Your task to perform on an android device: Open location settings Image 0: 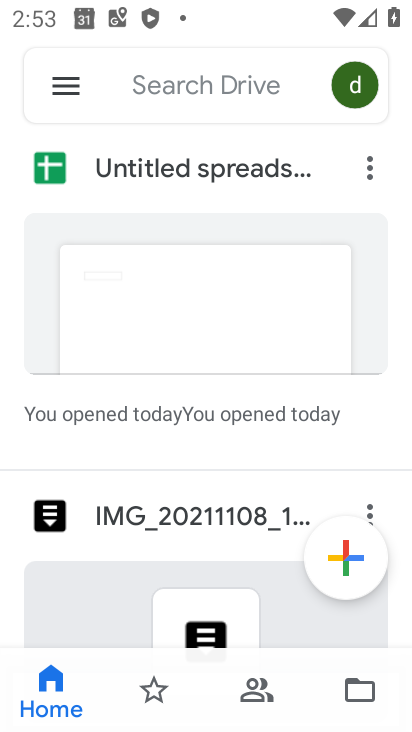
Step 0: press home button
Your task to perform on an android device: Open location settings Image 1: 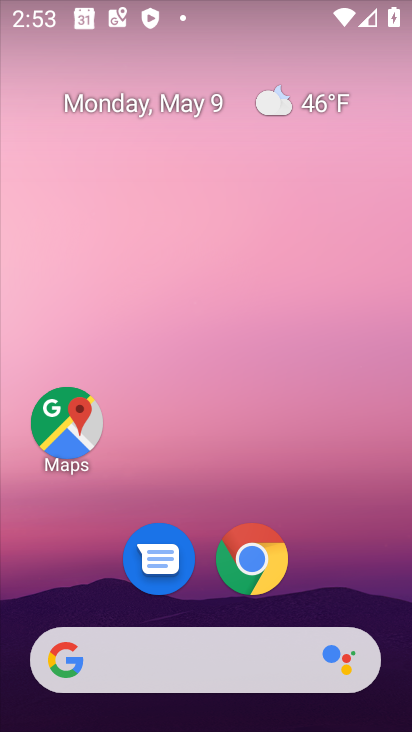
Step 1: drag from (291, 529) to (324, 221)
Your task to perform on an android device: Open location settings Image 2: 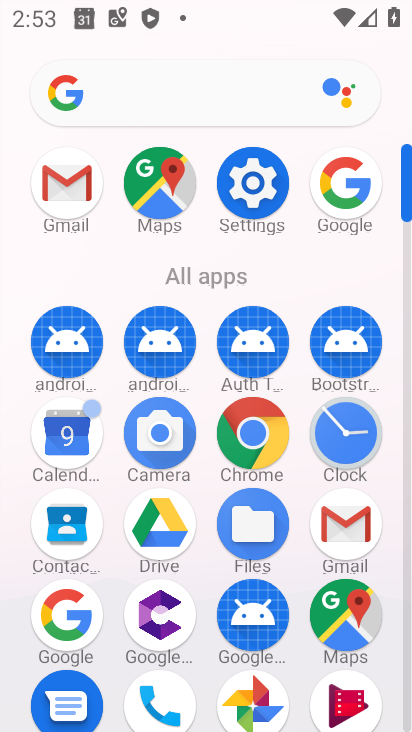
Step 2: click (250, 192)
Your task to perform on an android device: Open location settings Image 3: 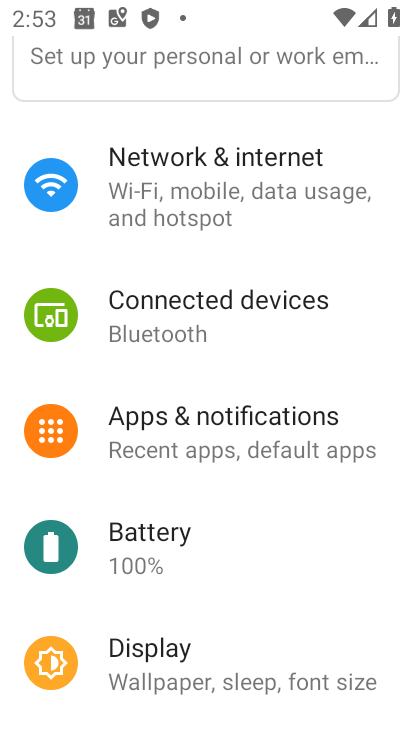
Step 3: drag from (328, 596) to (334, 263)
Your task to perform on an android device: Open location settings Image 4: 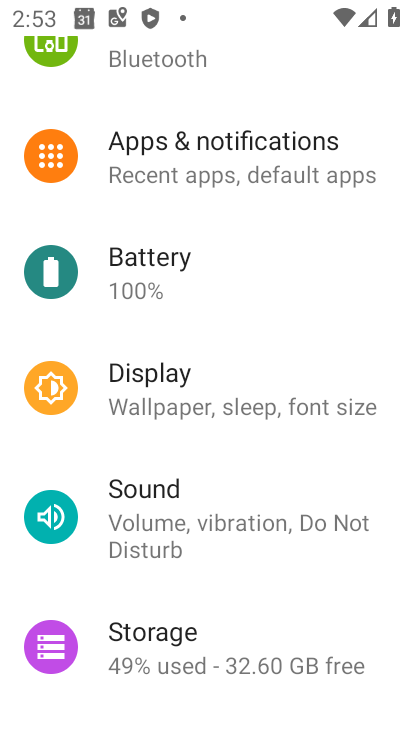
Step 4: drag from (278, 582) to (290, 216)
Your task to perform on an android device: Open location settings Image 5: 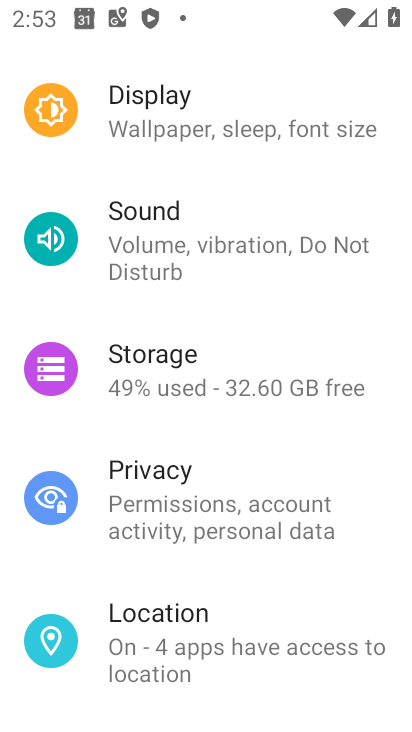
Step 5: click (267, 636)
Your task to perform on an android device: Open location settings Image 6: 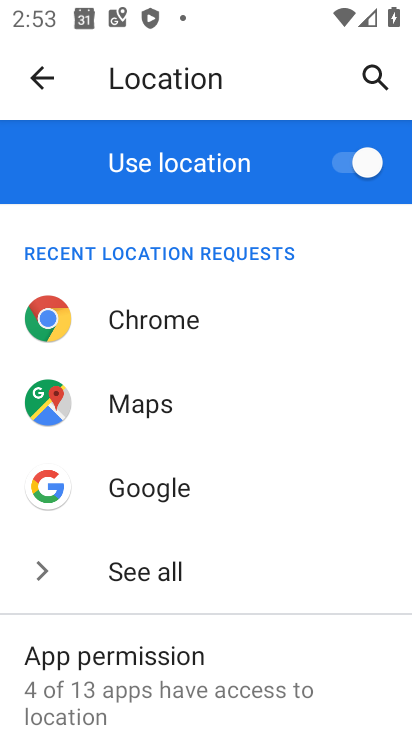
Step 6: task complete